Your task to perform on an android device: turn on translation in the chrome app Image 0: 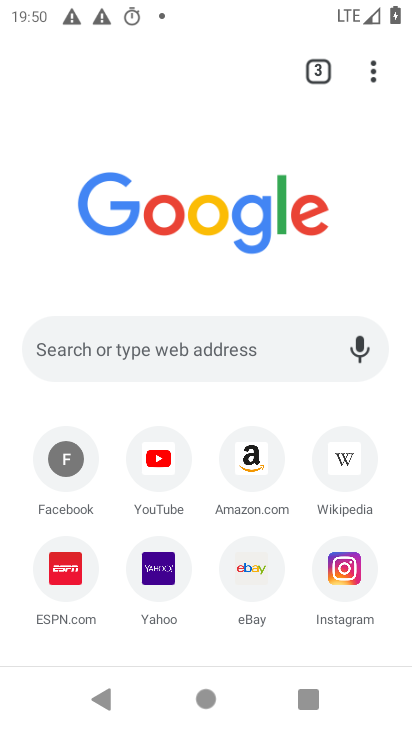
Step 0: click (365, 70)
Your task to perform on an android device: turn on translation in the chrome app Image 1: 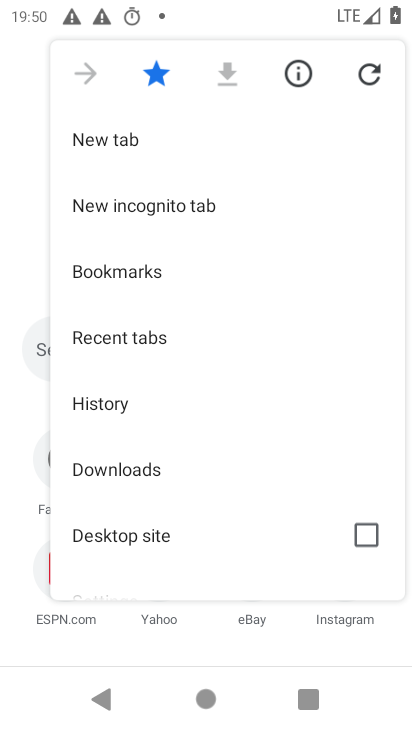
Step 1: drag from (144, 500) to (180, 367)
Your task to perform on an android device: turn on translation in the chrome app Image 2: 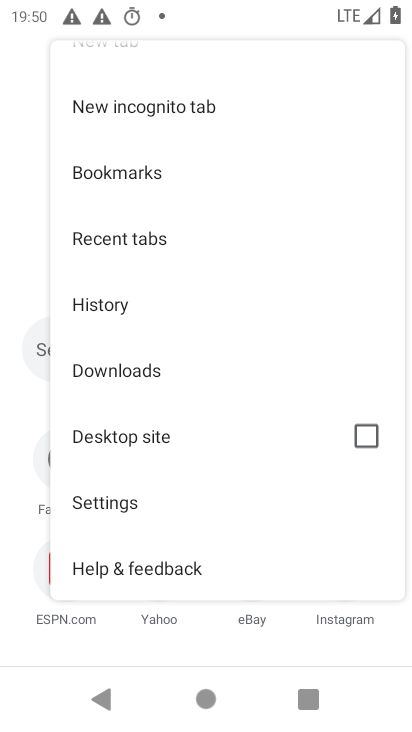
Step 2: click (114, 508)
Your task to perform on an android device: turn on translation in the chrome app Image 3: 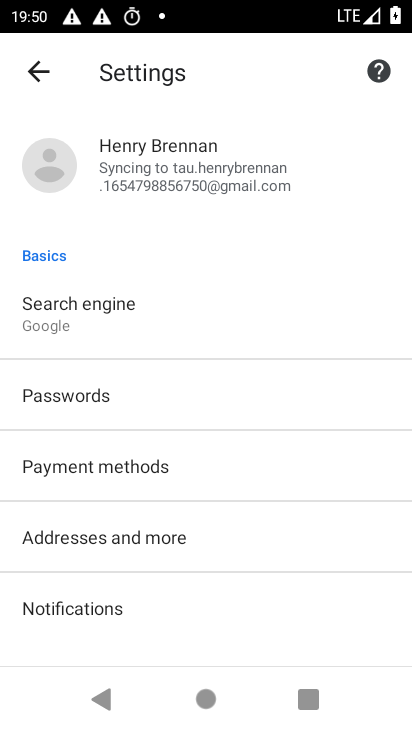
Step 3: drag from (147, 588) to (163, 446)
Your task to perform on an android device: turn on translation in the chrome app Image 4: 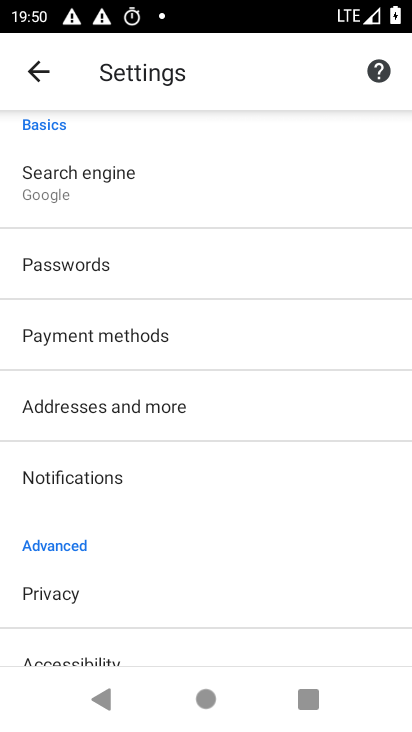
Step 4: drag from (116, 611) to (151, 464)
Your task to perform on an android device: turn on translation in the chrome app Image 5: 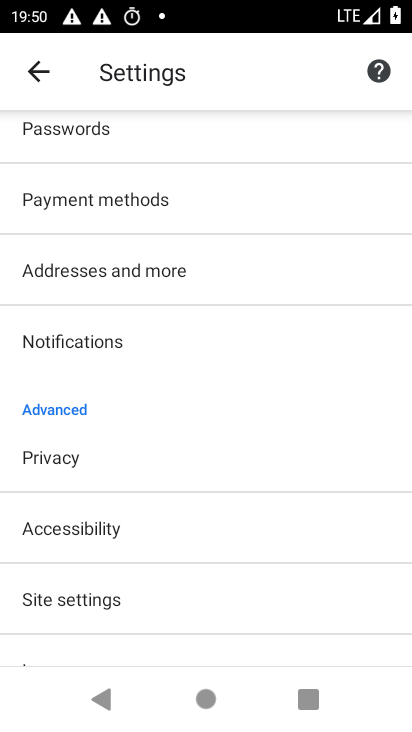
Step 5: drag from (154, 618) to (167, 478)
Your task to perform on an android device: turn on translation in the chrome app Image 6: 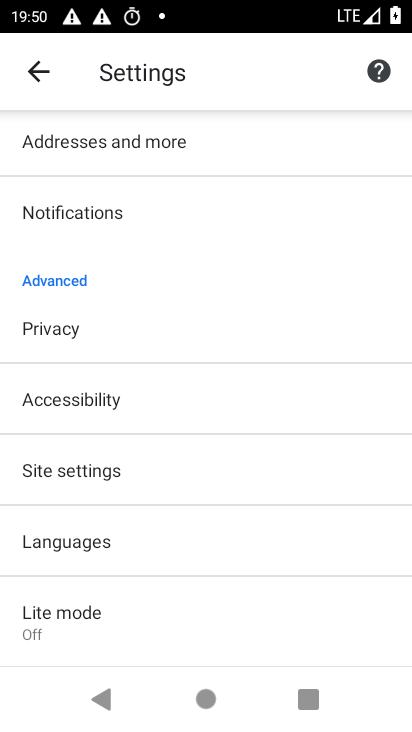
Step 6: click (68, 544)
Your task to perform on an android device: turn on translation in the chrome app Image 7: 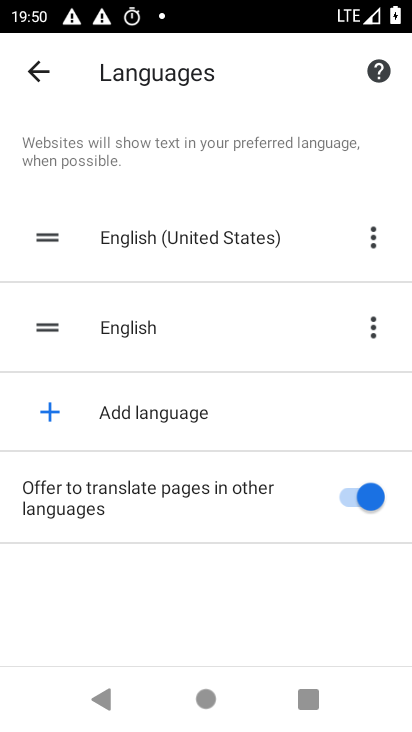
Step 7: task complete